Your task to perform on an android device: Open sound settings Image 0: 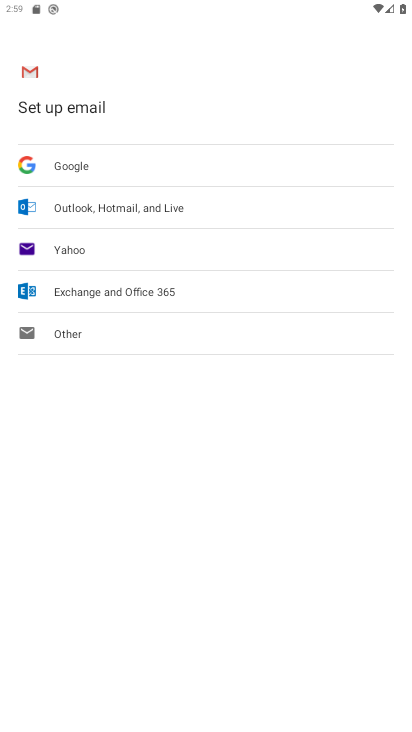
Step 0: press home button
Your task to perform on an android device: Open sound settings Image 1: 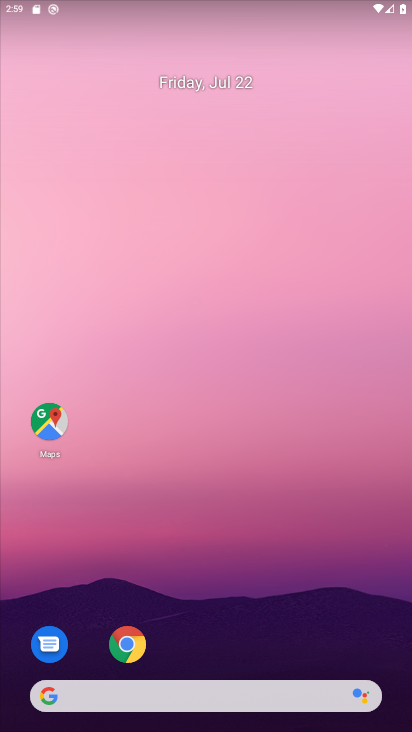
Step 1: drag from (179, 640) to (234, 214)
Your task to perform on an android device: Open sound settings Image 2: 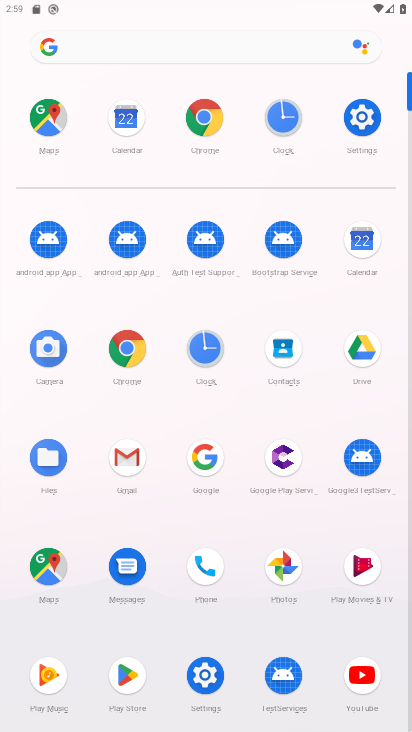
Step 2: click (360, 123)
Your task to perform on an android device: Open sound settings Image 3: 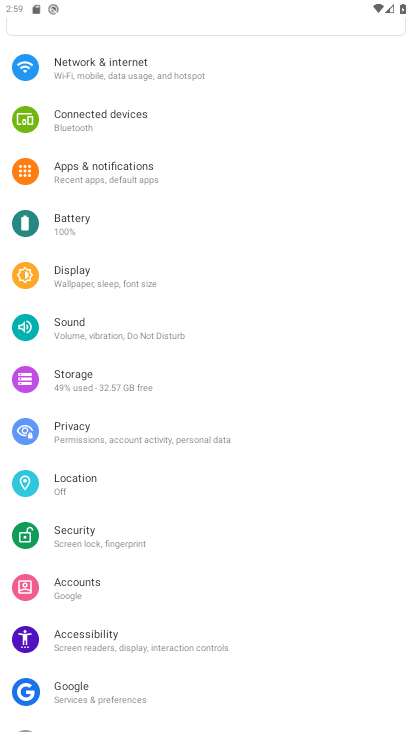
Step 3: click (98, 328)
Your task to perform on an android device: Open sound settings Image 4: 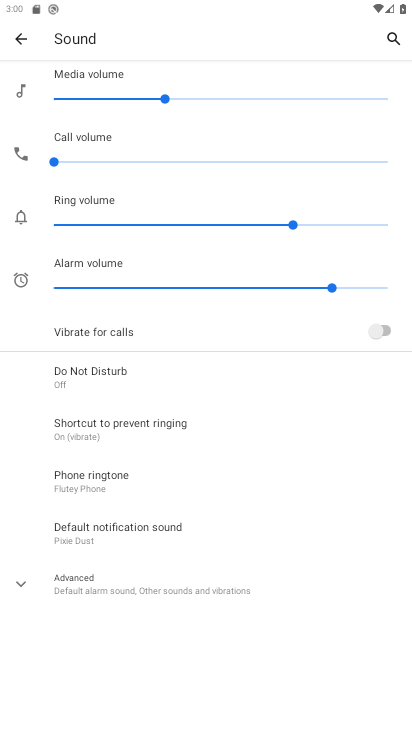
Step 4: task complete